Your task to perform on an android device: see creations saved in the google photos Image 0: 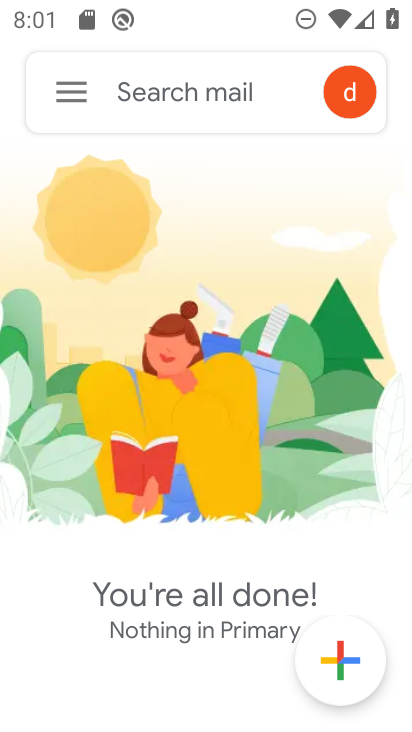
Step 0: press back button
Your task to perform on an android device: see creations saved in the google photos Image 1: 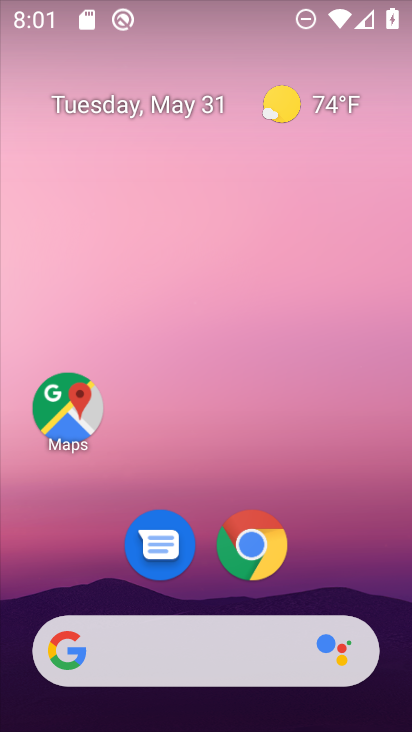
Step 1: drag from (359, 567) to (262, 52)
Your task to perform on an android device: see creations saved in the google photos Image 2: 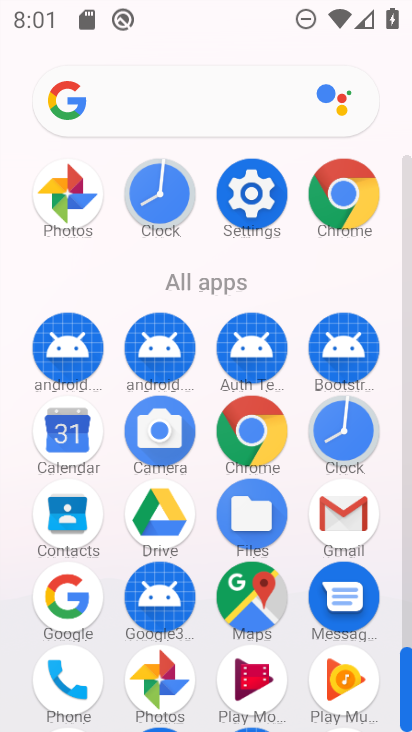
Step 2: drag from (2, 530) to (10, 248)
Your task to perform on an android device: see creations saved in the google photos Image 3: 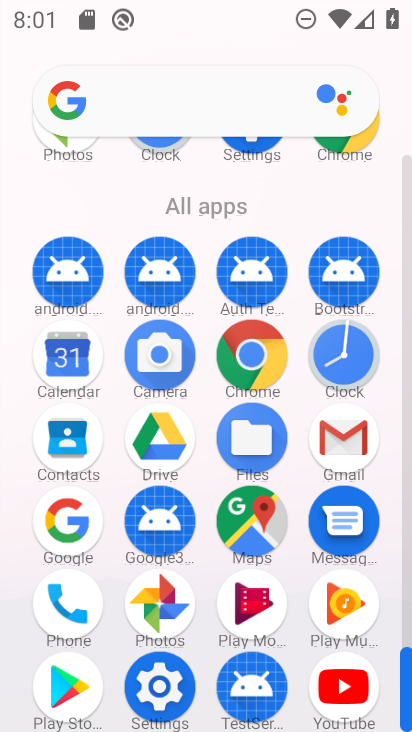
Step 3: click (161, 601)
Your task to perform on an android device: see creations saved in the google photos Image 4: 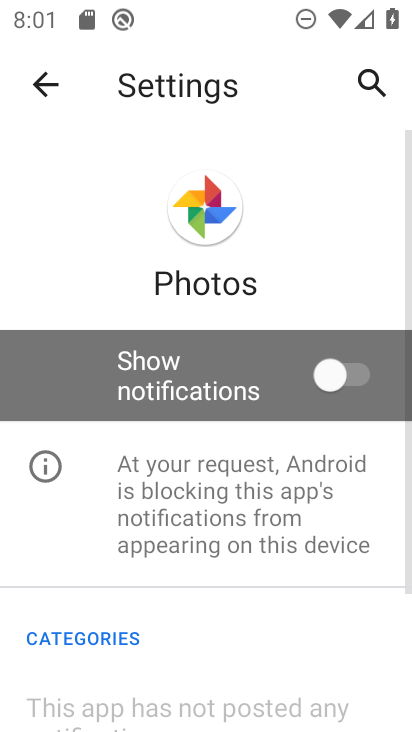
Step 4: click (39, 63)
Your task to perform on an android device: see creations saved in the google photos Image 5: 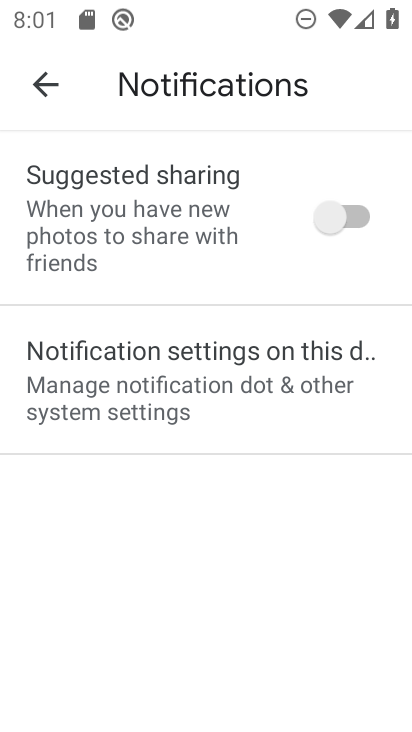
Step 5: click (39, 63)
Your task to perform on an android device: see creations saved in the google photos Image 6: 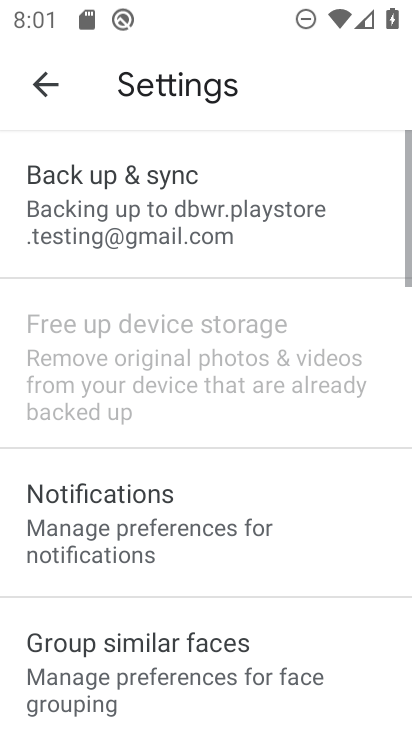
Step 6: click (39, 63)
Your task to perform on an android device: see creations saved in the google photos Image 7: 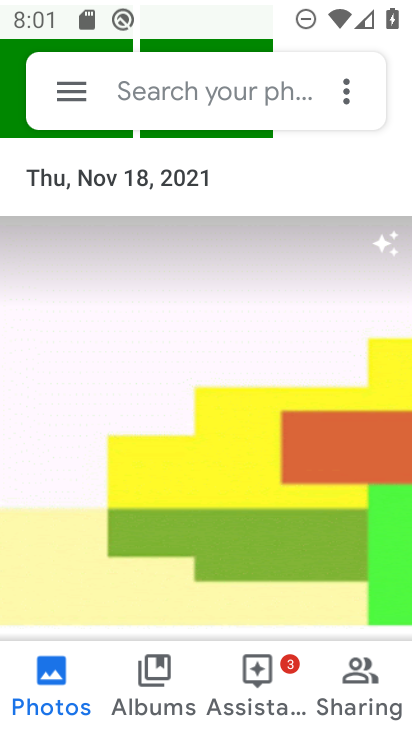
Step 7: task complete